Your task to perform on an android device: Open Google Chrome and click the shortcut for Amazon.com Image 0: 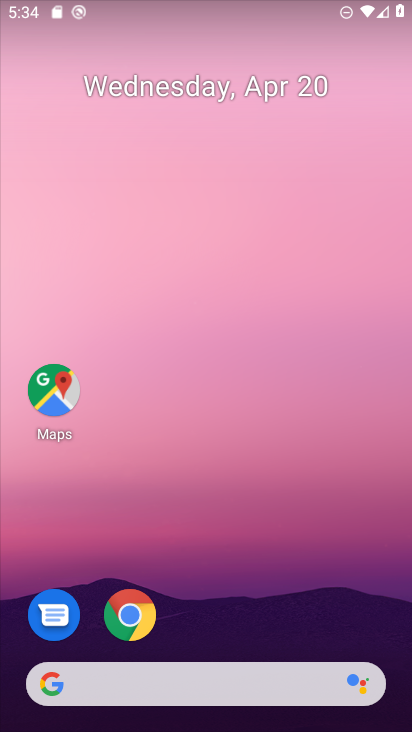
Step 0: click (138, 619)
Your task to perform on an android device: Open Google Chrome and click the shortcut for Amazon.com Image 1: 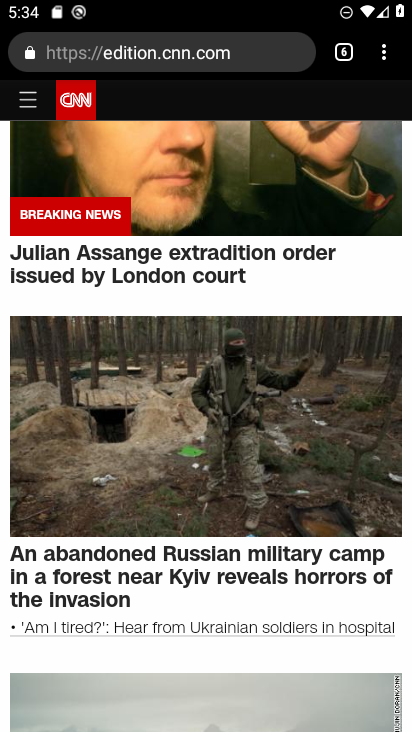
Step 1: click (342, 53)
Your task to perform on an android device: Open Google Chrome and click the shortcut for Amazon.com Image 2: 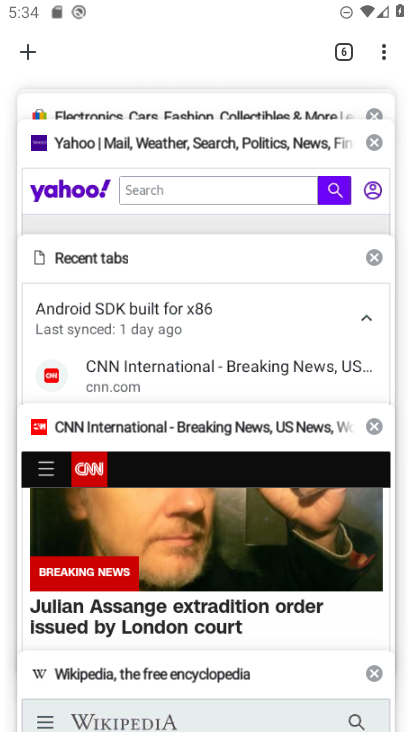
Step 2: click (29, 52)
Your task to perform on an android device: Open Google Chrome and click the shortcut for Amazon.com Image 3: 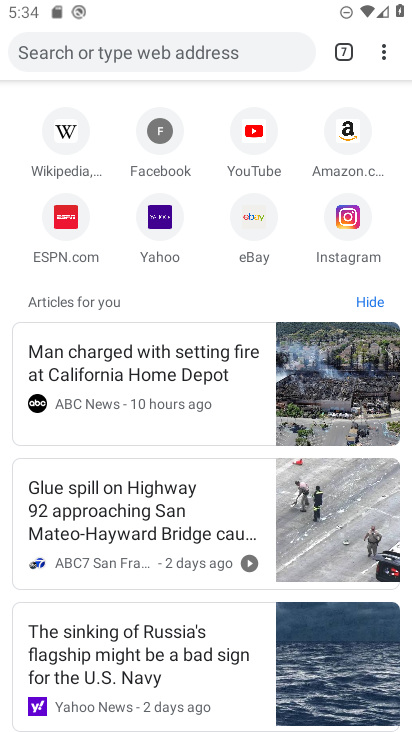
Step 3: click (348, 143)
Your task to perform on an android device: Open Google Chrome and click the shortcut for Amazon.com Image 4: 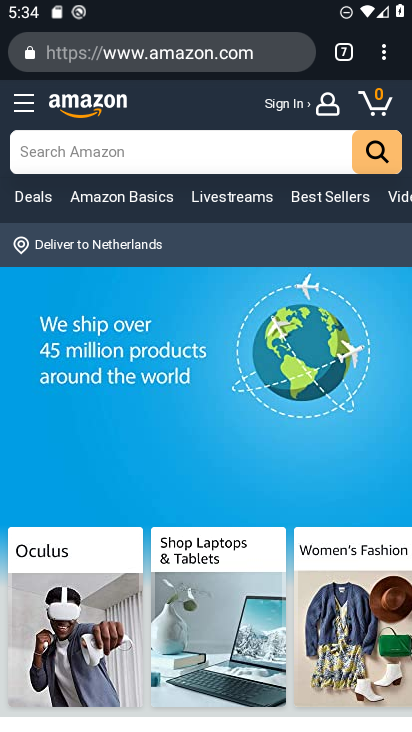
Step 4: task complete